Your task to perform on an android device: Clear all items from cart on walmart. Search for "razer blackwidow" on walmart, select the first entry, and add it to the cart. Image 0: 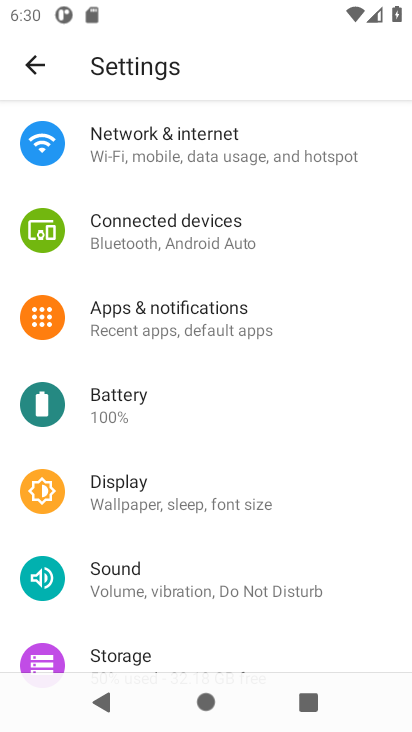
Step 0: press home button
Your task to perform on an android device: Clear all items from cart on walmart. Search for "razer blackwidow" on walmart, select the first entry, and add it to the cart. Image 1: 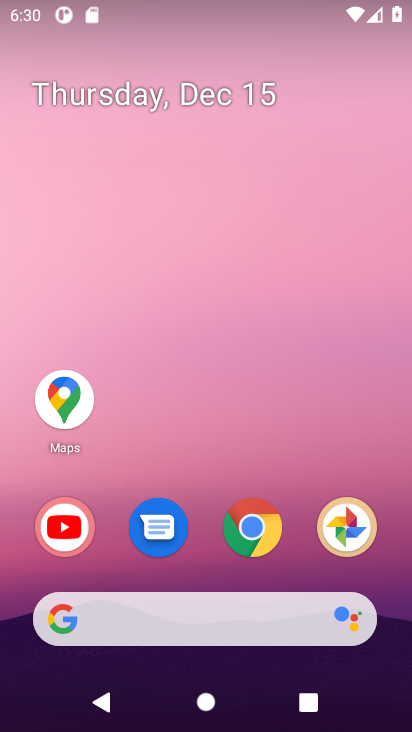
Step 1: click (185, 620)
Your task to perform on an android device: Clear all items from cart on walmart. Search for "razer blackwidow" on walmart, select the first entry, and add it to the cart. Image 2: 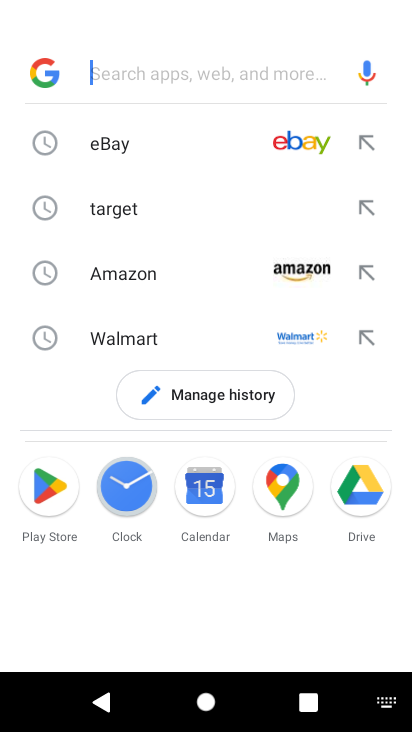
Step 2: type "walmart"
Your task to perform on an android device: Clear all items from cart on walmart. Search for "razer blackwidow" on walmart, select the first entry, and add it to the cart. Image 3: 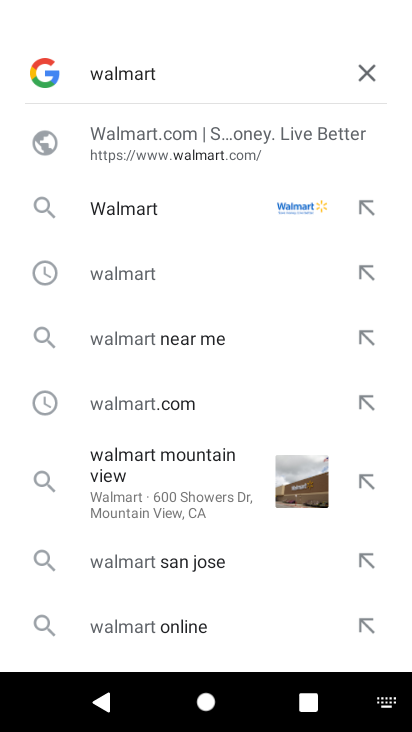
Step 3: click (171, 151)
Your task to perform on an android device: Clear all items from cart on walmart. Search for "razer blackwidow" on walmart, select the first entry, and add it to the cart. Image 4: 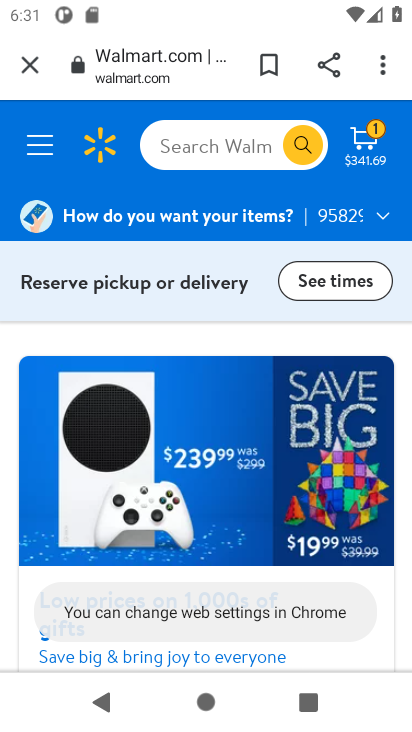
Step 4: click (211, 147)
Your task to perform on an android device: Clear all items from cart on walmart. Search for "razer blackwidow" on walmart, select the first entry, and add it to the cart. Image 5: 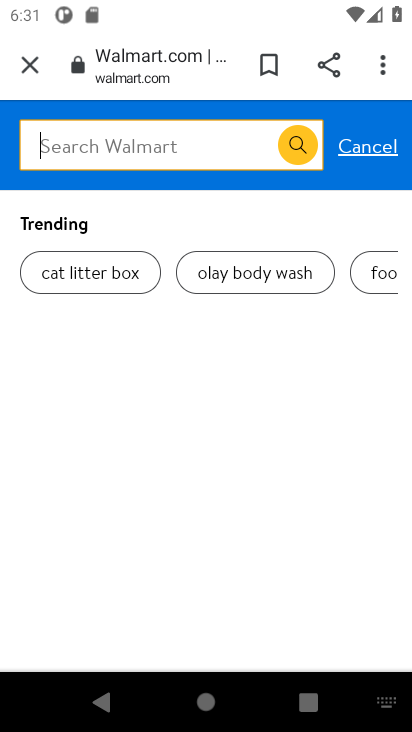
Step 5: type "razer blackwidow"
Your task to perform on an android device: Clear all items from cart on walmart. Search for "razer blackwidow" on walmart, select the first entry, and add it to the cart. Image 6: 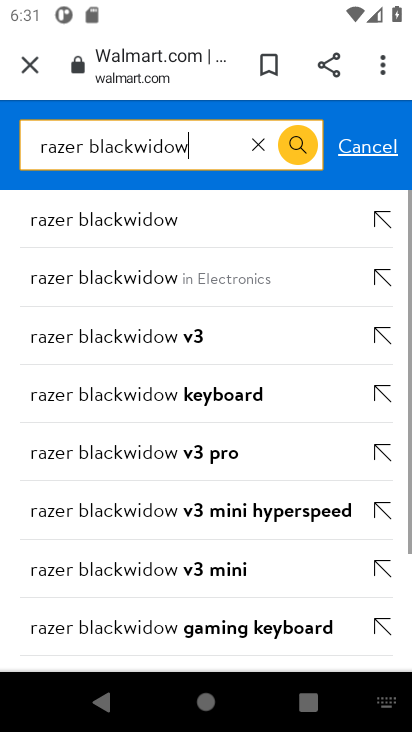
Step 6: click (302, 151)
Your task to perform on an android device: Clear all items from cart on walmart. Search for "razer blackwidow" on walmart, select the first entry, and add it to the cart. Image 7: 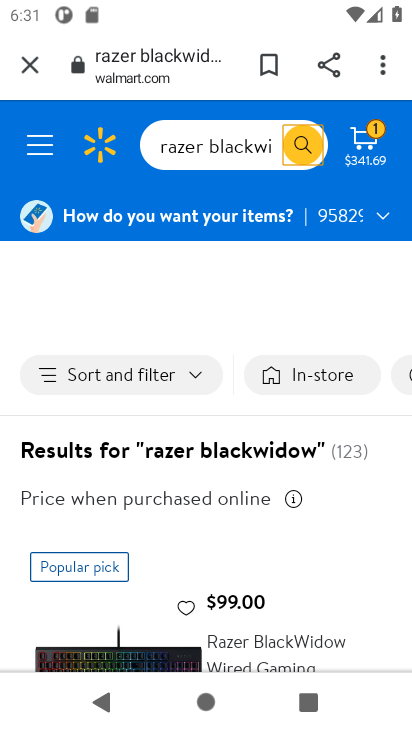
Step 7: click (247, 644)
Your task to perform on an android device: Clear all items from cart on walmart. Search for "razer blackwidow" on walmart, select the first entry, and add it to the cart. Image 8: 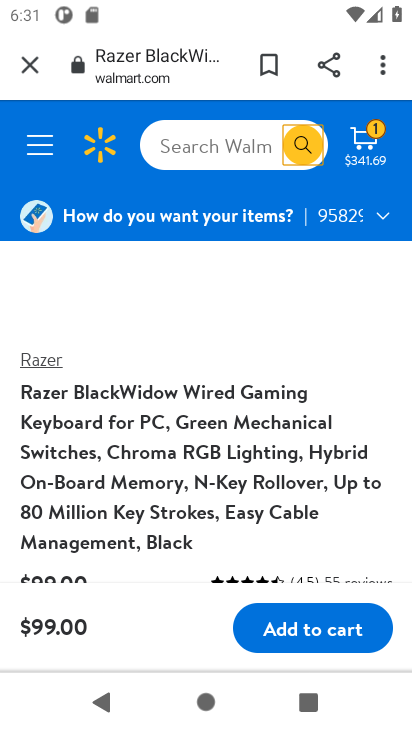
Step 8: click (291, 630)
Your task to perform on an android device: Clear all items from cart on walmart. Search for "razer blackwidow" on walmart, select the first entry, and add it to the cart. Image 9: 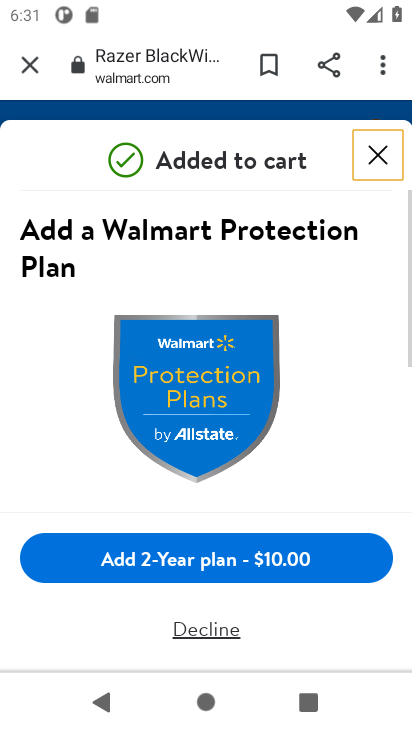
Step 9: task complete